Your task to perform on an android device: Open the map Image 0: 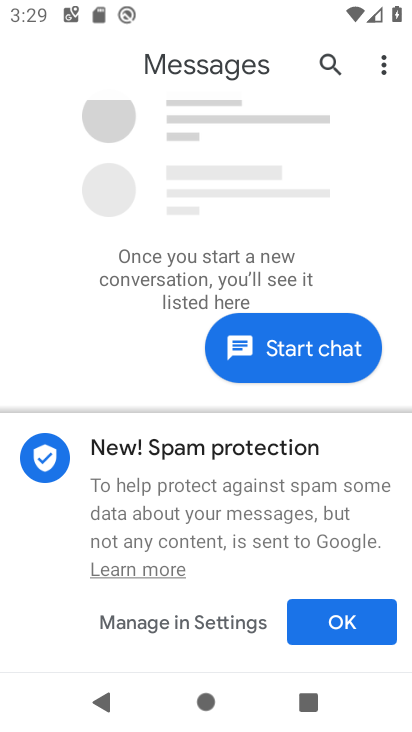
Step 0: press home button
Your task to perform on an android device: Open the map Image 1: 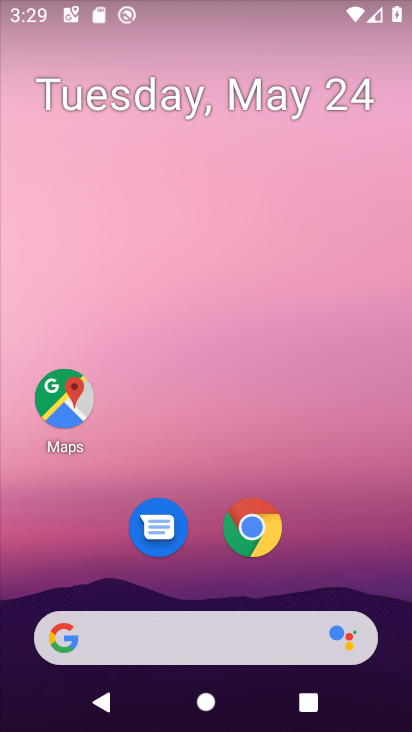
Step 1: click (62, 400)
Your task to perform on an android device: Open the map Image 2: 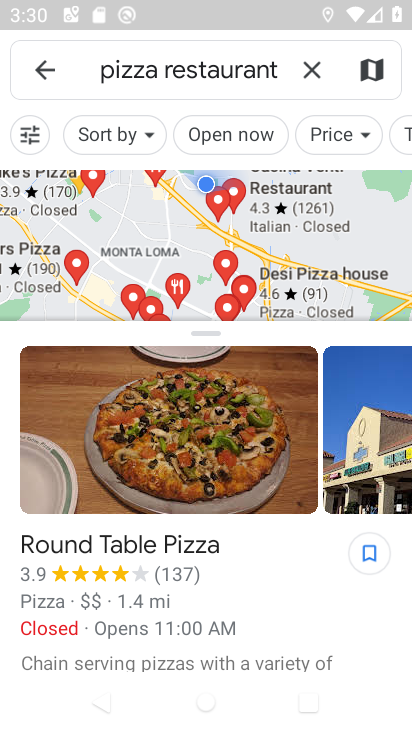
Step 2: task complete